Your task to perform on an android device: change the clock display to show seconds Image 0: 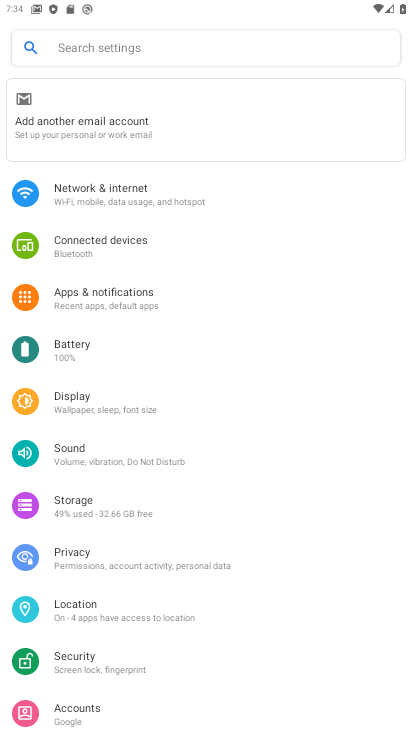
Step 0: press home button
Your task to perform on an android device: change the clock display to show seconds Image 1: 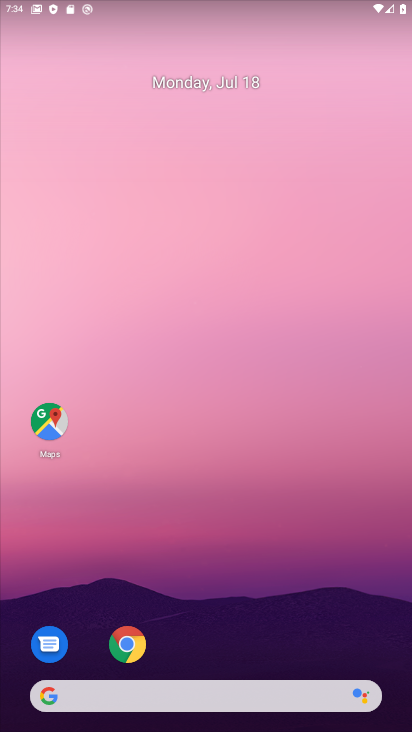
Step 1: drag from (157, 694) to (319, 179)
Your task to perform on an android device: change the clock display to show seconds Image 2: 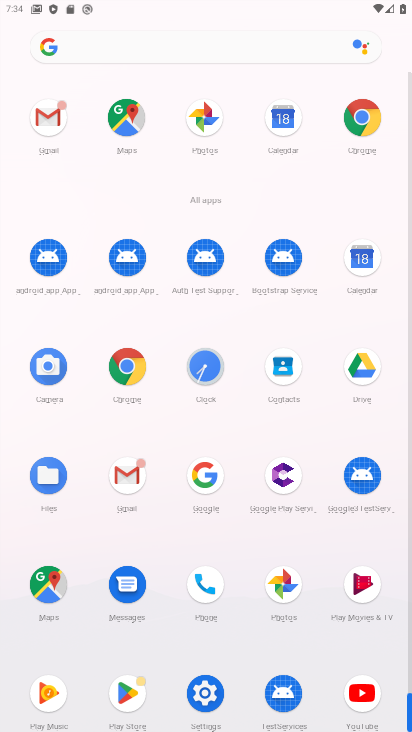
Step 2: click (198, 367)
Your task to perform on an android device: change the clock display to show seconds Image 3: 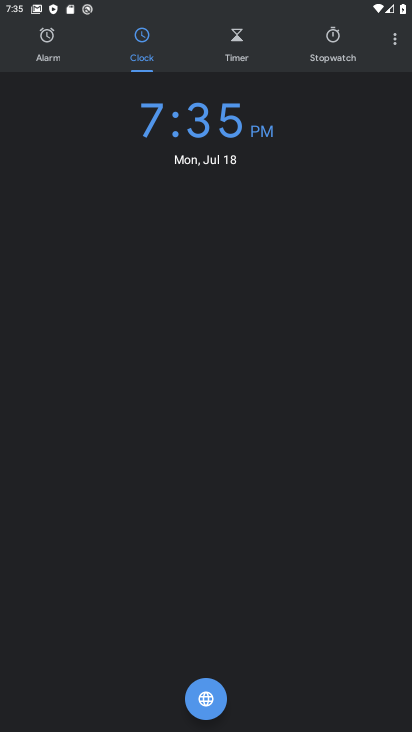
Step 3: click (394, 42)
Your task to perform on an android device: change the clock display to show seconds Image 4: 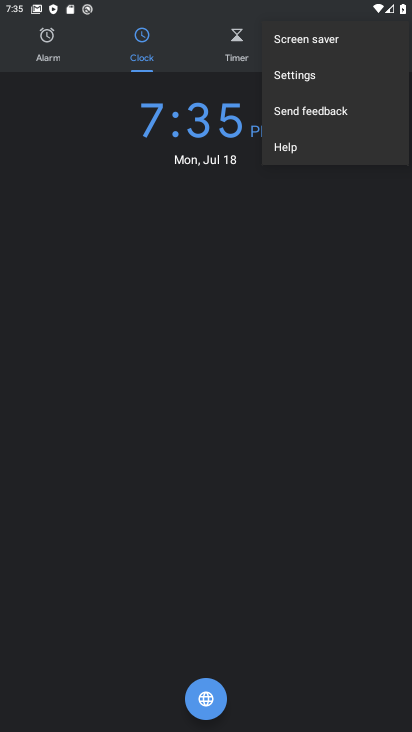
Step 4: click (302, 82)
Your task to perform on an android device: change the clock display to show seconds Image 5: 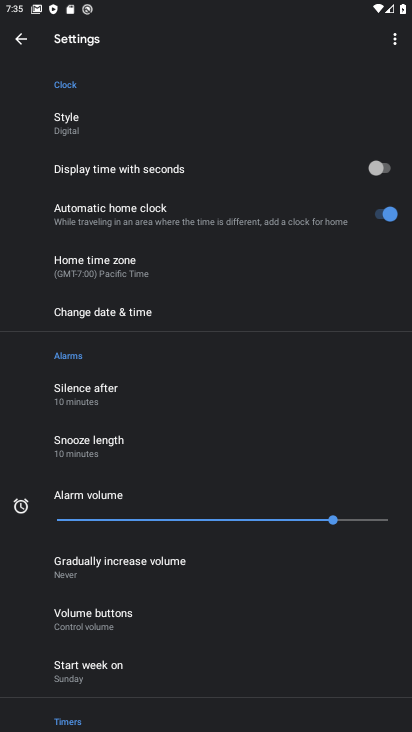
Step 5: click (387, 173)
Your task to perform on an android device: change the clock display to show seconds Image 6: 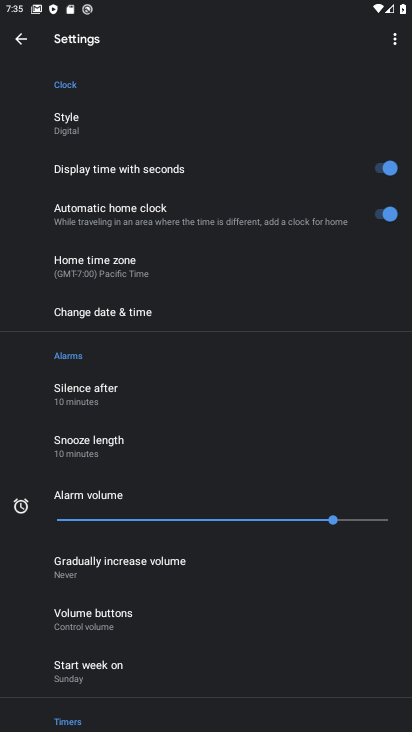
Step 6: task complete